Your task to perform on an android device: Search for pizza restaurants on Maps Image 0: 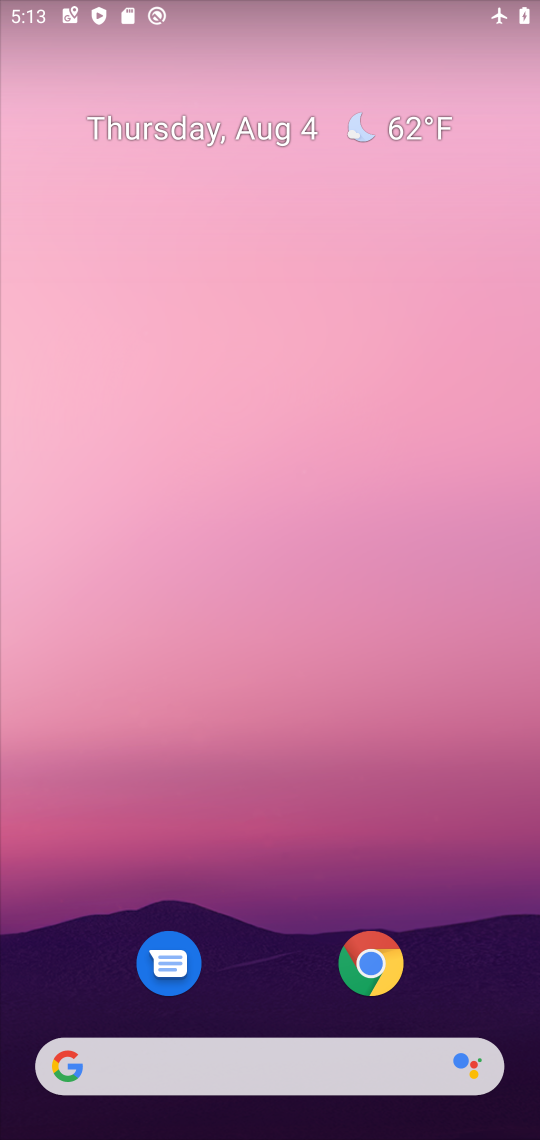
Step 0: drag from (263, 810) to (292, 13)
Your task to perform on an android device: Search for pizza restaurants on Maps Image 1: 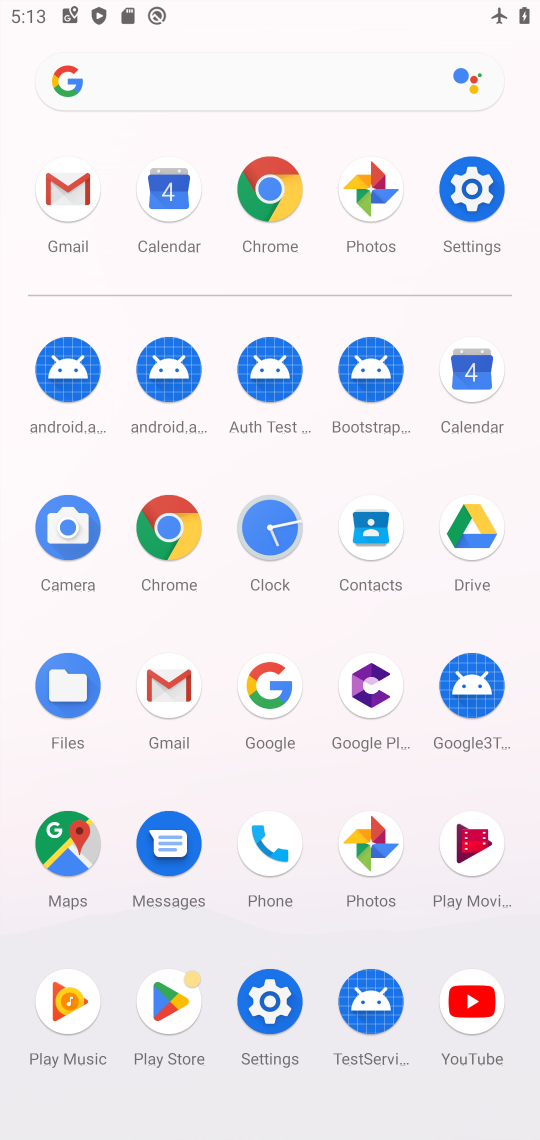
Step 1: click (67, 841)
Your task to perform on an android device: Search for pizza restaurants on Maps Image 2: 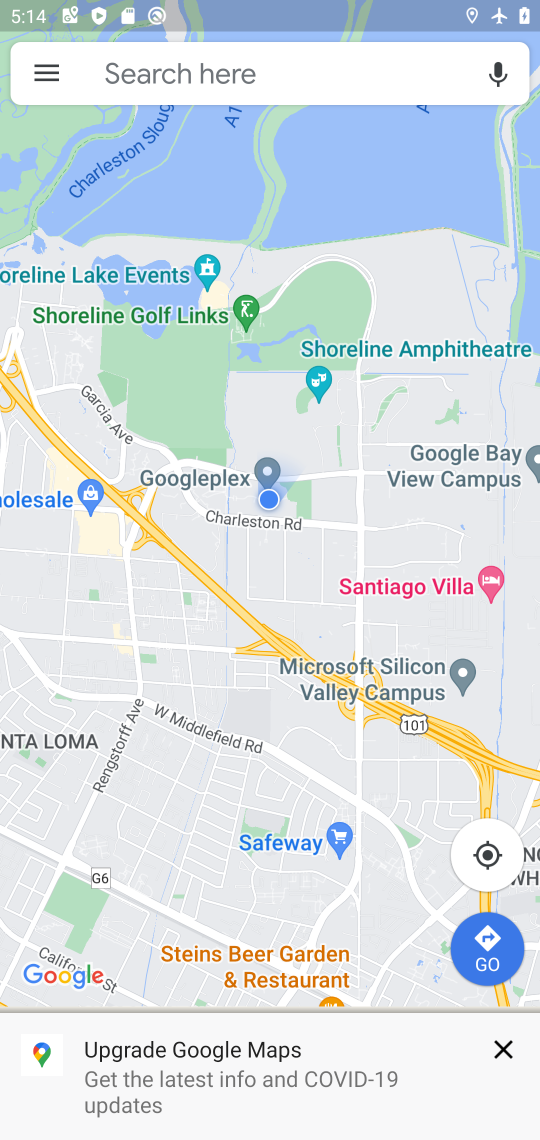
Step 2: click (222, 68)
Your task to perform on an android device: Search for pizza restaurants on Maps Image 3: 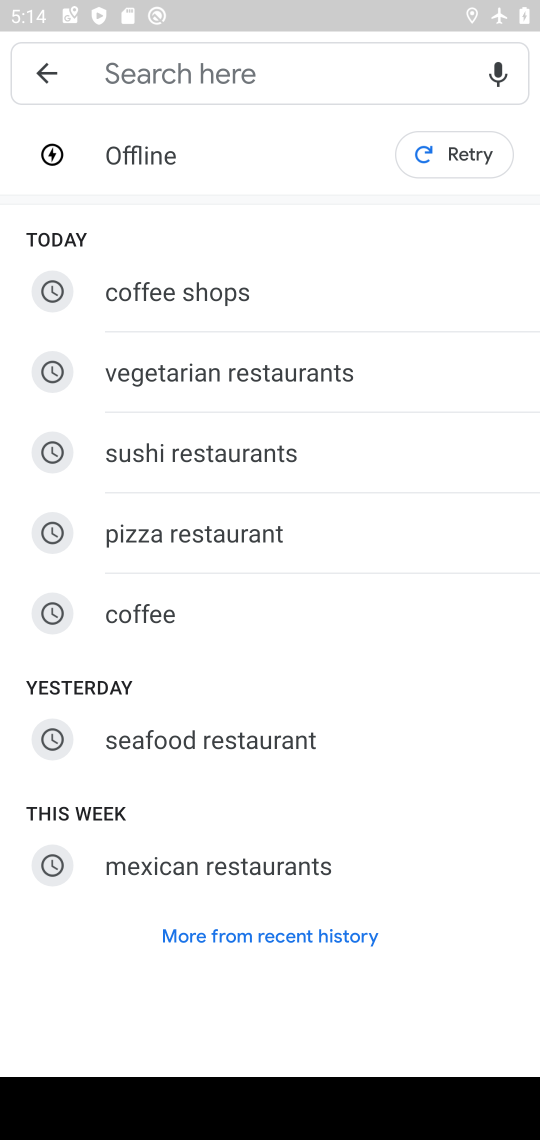
Step 3: click (188, 529)
Your task to perform on an android device: Search for pizza restaurants on Maps Image 4: 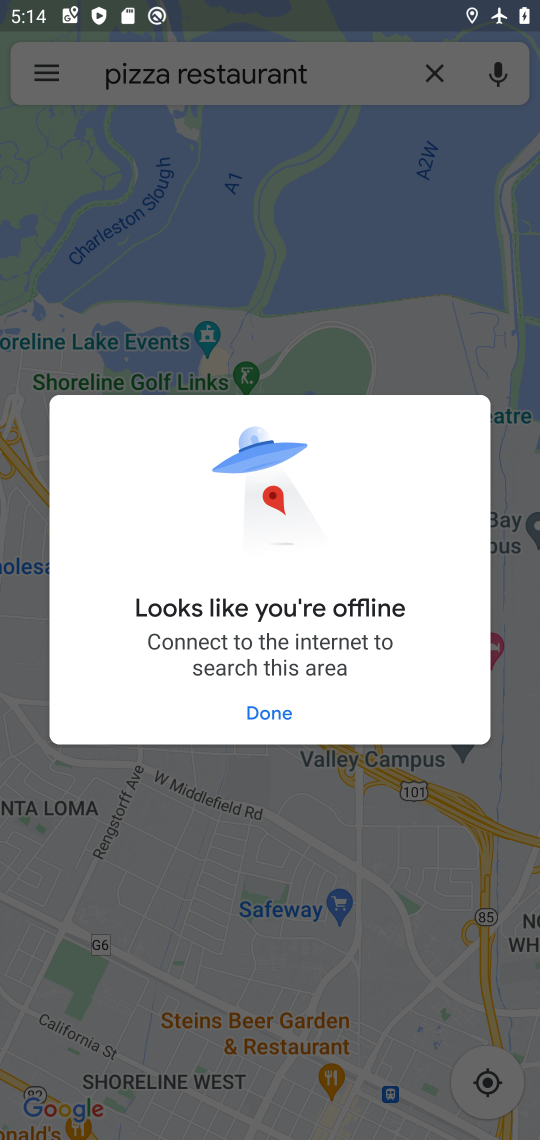
Step 4: click (263, 708)
Your task to perform on an android device: Search for pizza restaurants on Maps Image 5: 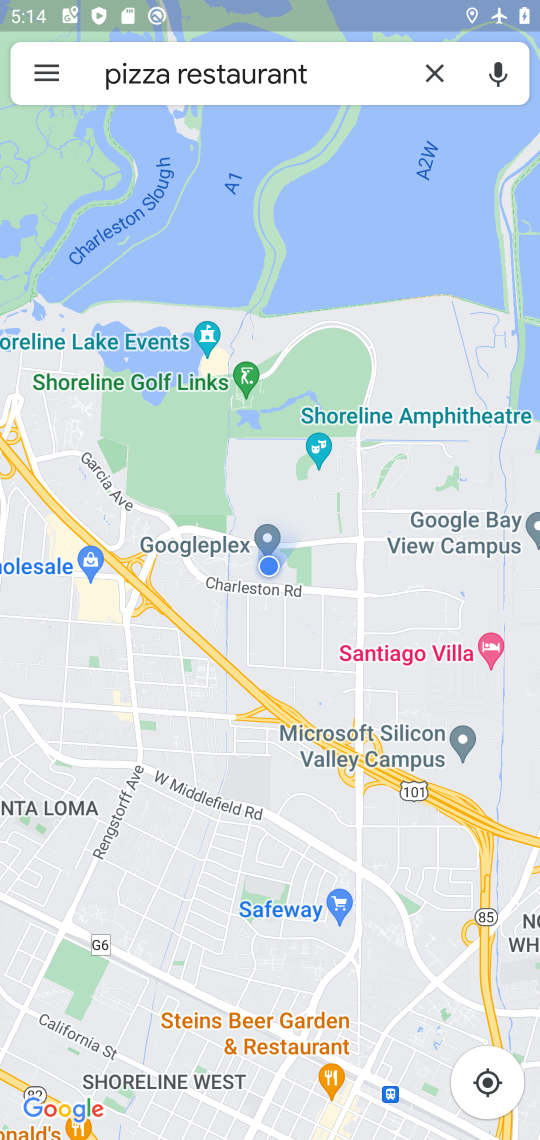
Step 5: task complete